Your task to perform on an android device: create a new album in the google photos Image 0: 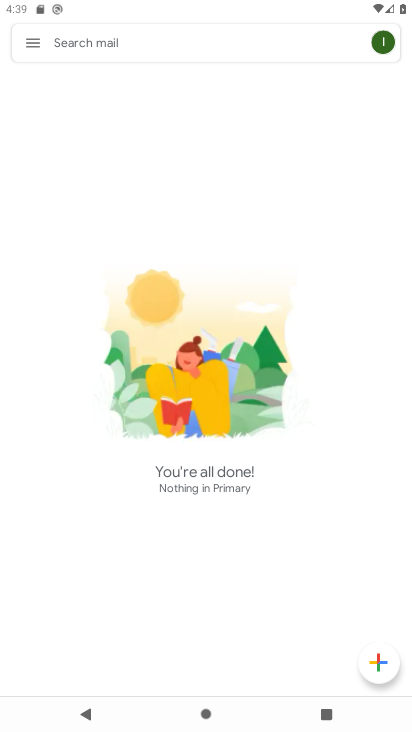
Step 0: press home button
Your task to perform on an android device: create a new album in the google photos Image 1: 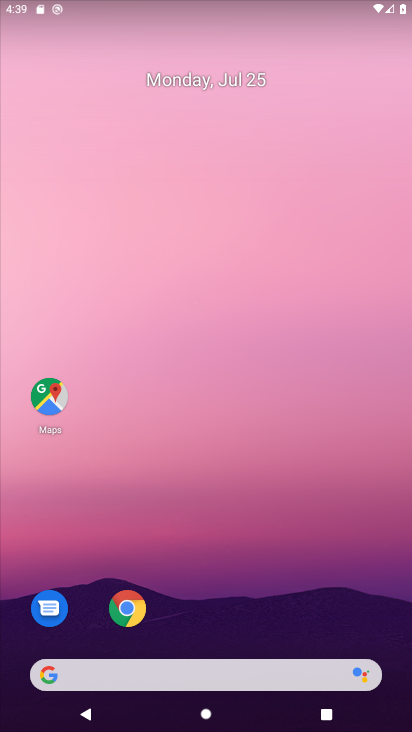
Step 1: drag from (248, 638) to (263, 3)
Your task to perform on an android device: create a new album in the google photos Image 2: 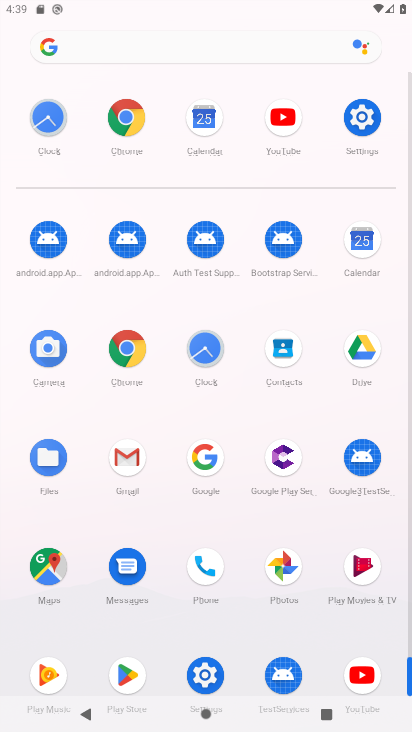
Step 2: drag from (212, 624) to (251, 26)
Your task to perform on an android device: create a new album in the google photos Image 3: 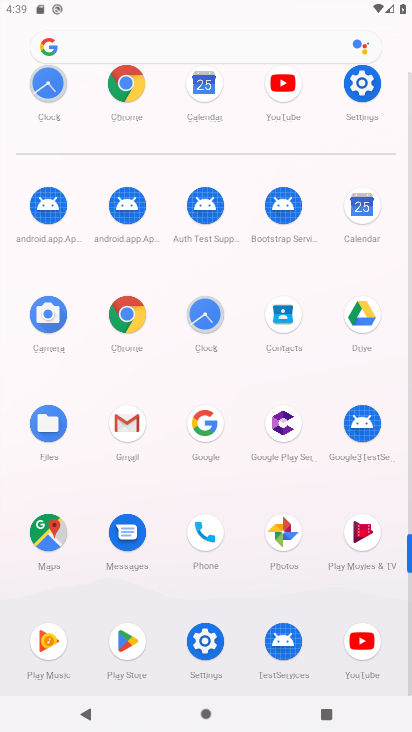
Step 3: click (291, 535)
Your task to perform on an android device: create a new album in the google photos Image 4: 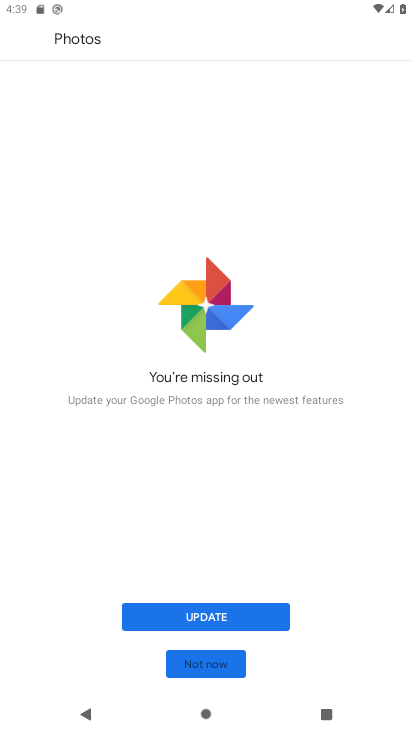
Step 4: click (213, 666)
Your task to perform on an android device: create a new album in the google photos Image 5: 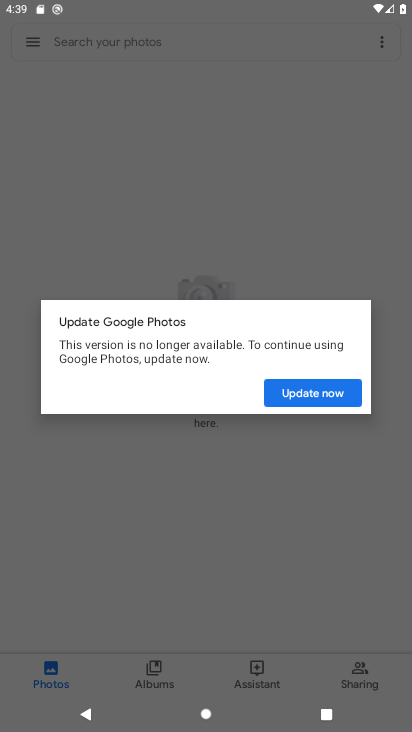
Step 5: click (333, 383)
Your task to perform on an android device: create a new album in the google photos Image 6: 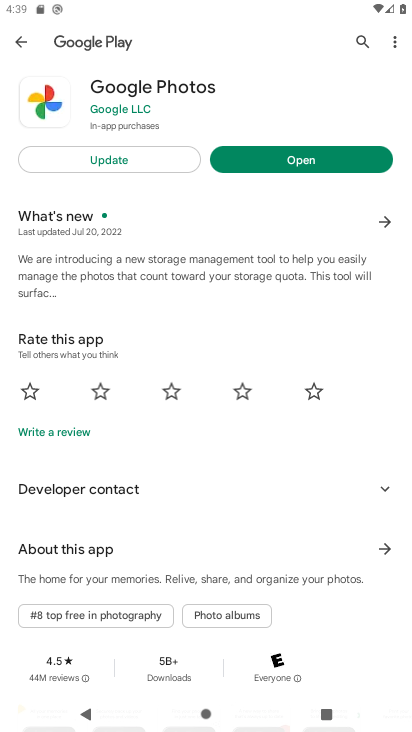
Step 6: click (248, 155)
Your task to perform on an android device: create a new album in the google photos Image 7: 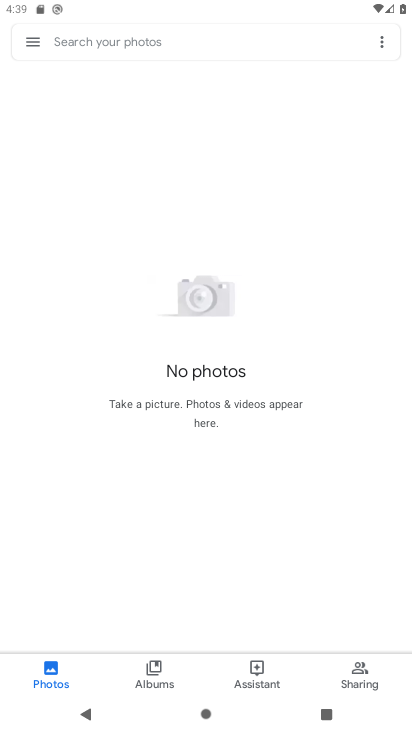
Step 7: click (146, 673)
Your task to perform on an android device: create a new album in the google photos Image 8: 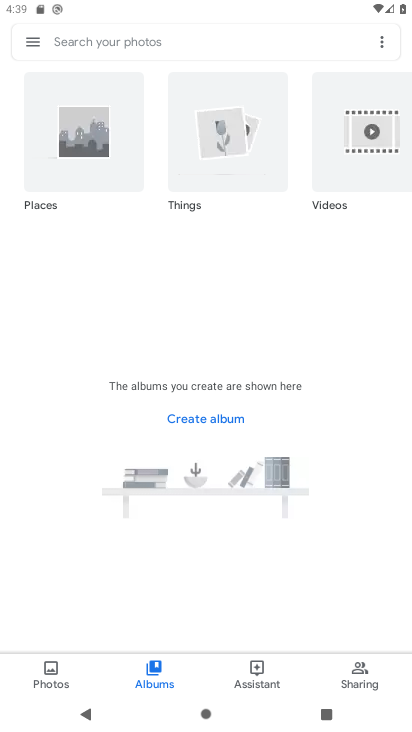
Step 8: click (194, 422)
Your task to perform on an android device: create a new album in the google photos Image 9: 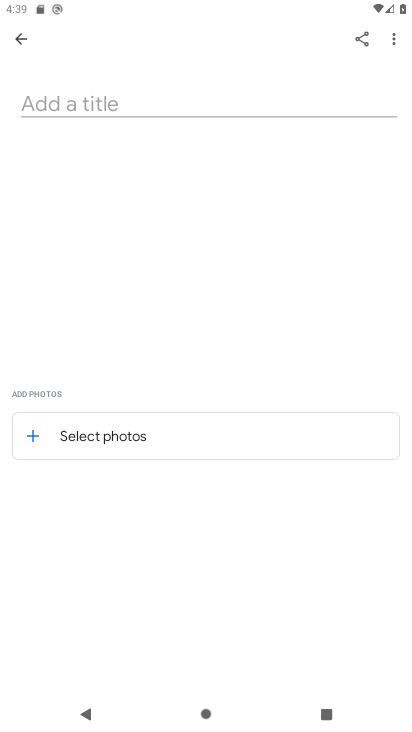
Step 9: click (34, 433)
Your task to perform on an android device: create a new album in the google photos Image 10: 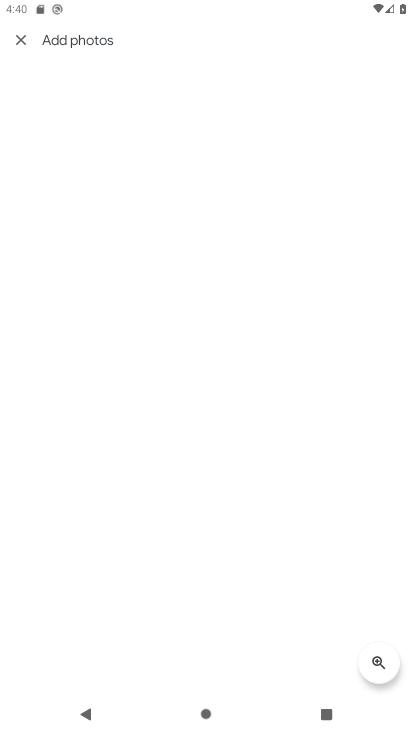
Step 10: task complete